Your task to perform on an android device: Search for the best gaming mouses on Amazon. Image 0: 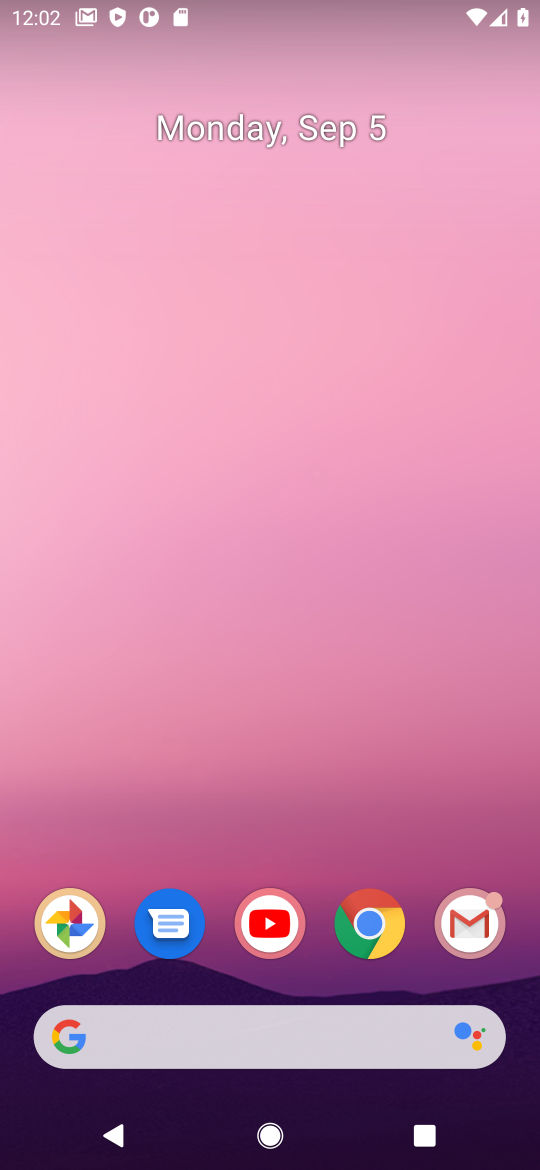
Step 0: click (348, 907)
Your task to perform on an android device: Search for the best gaming mouses on Amazon. Image 1: 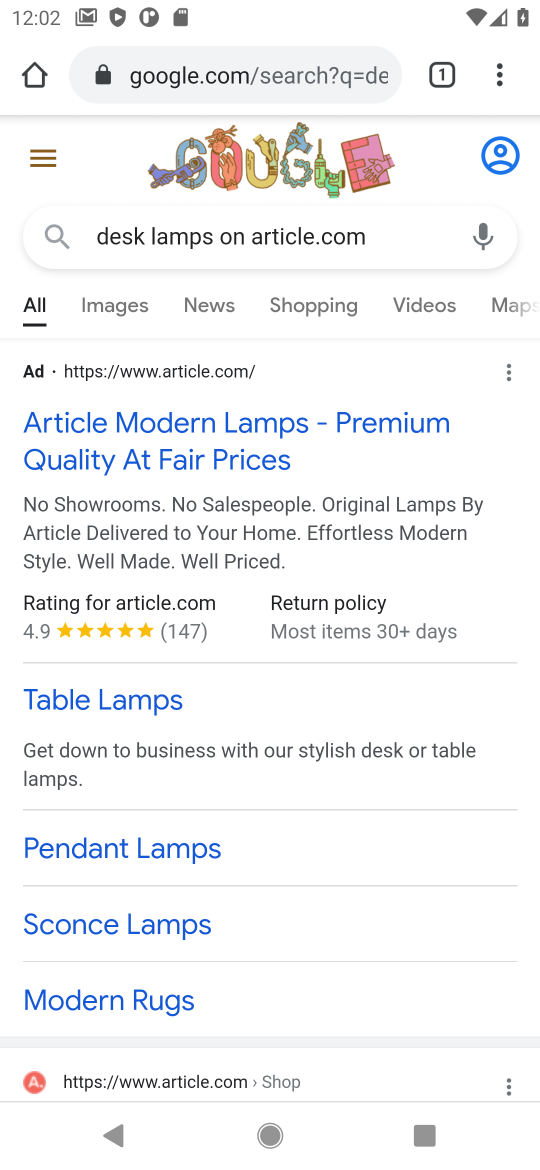
Step 1: click (191, 90)
Your task to perform on an android device: Search for the best gaming mouses on Amazon. Image 2: 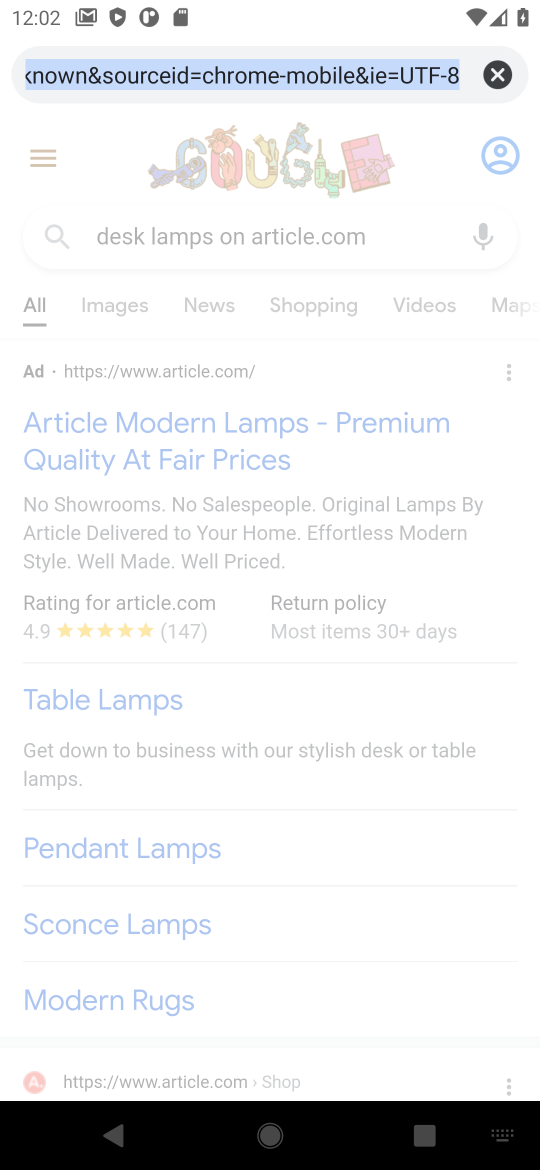
Step 2: click (496, 70)
Your task to perform on an android device: Search for the best gaming mouses on Amazon. Image 3: 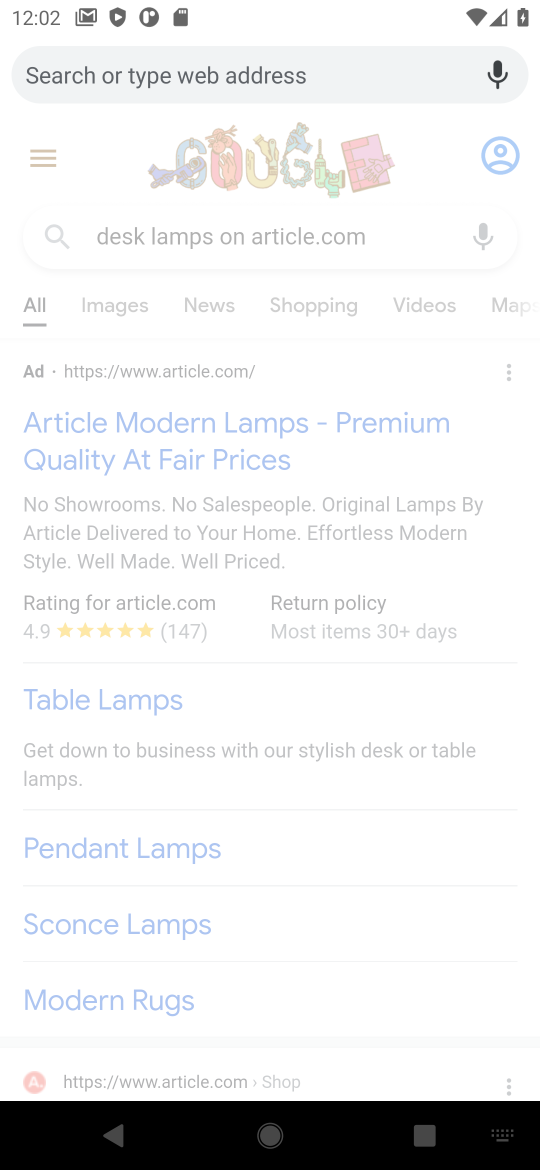
Step 3: type "the best gaming mouses on Amazon."
Your task to perform on an android device: Search for the best gaming mouses on Amazon. Image 4: 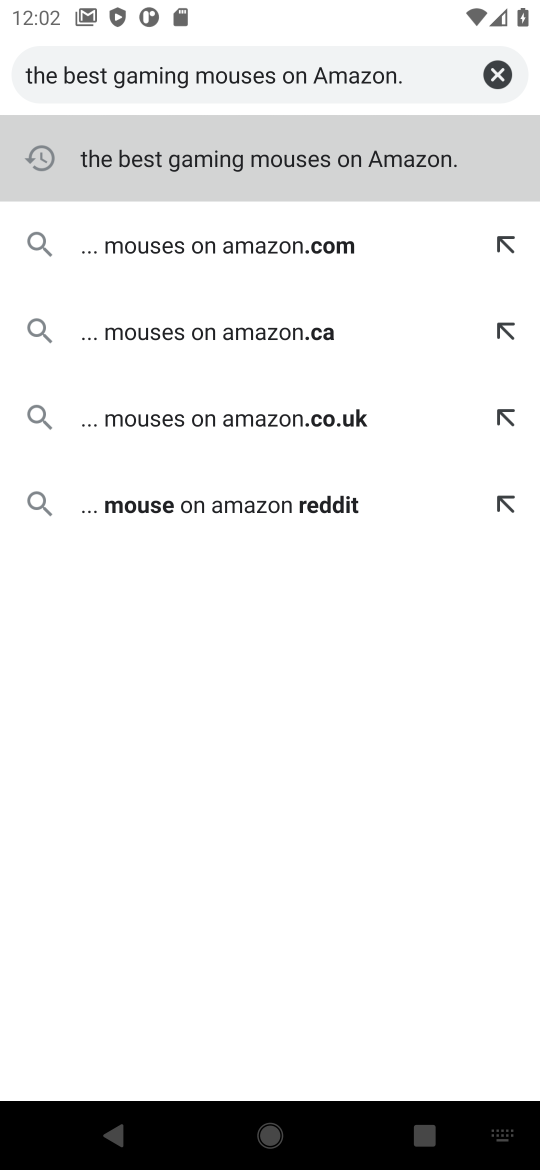
Step 4: click (389, 182)
Your task to perform on an android device: Search for the best gaming mouses on Amazon. Image 5: 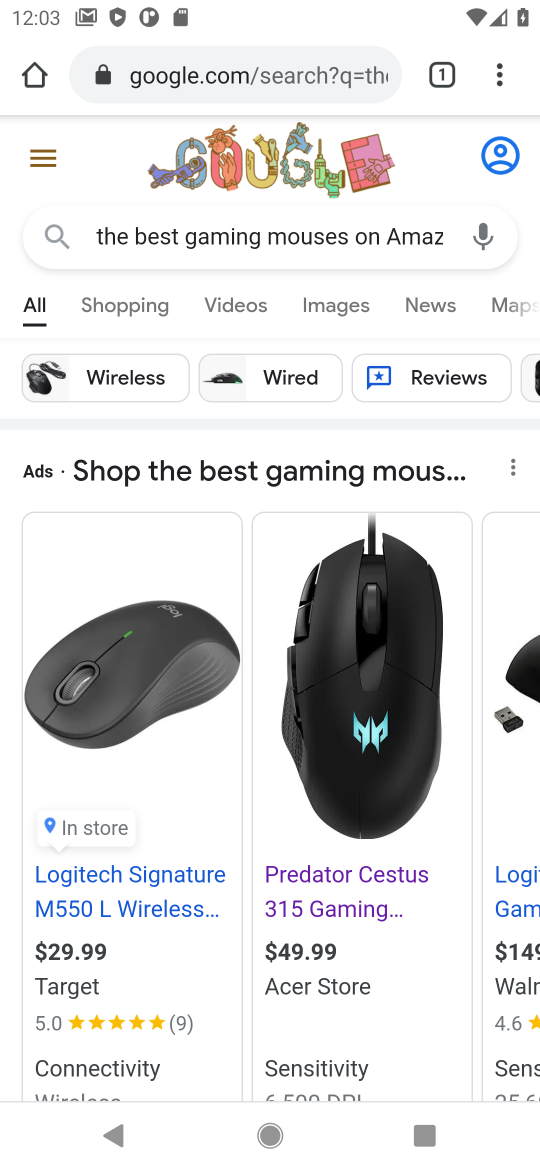
Step 5: task complete